Your task to perform on an android device: Go to Maps Image 0: 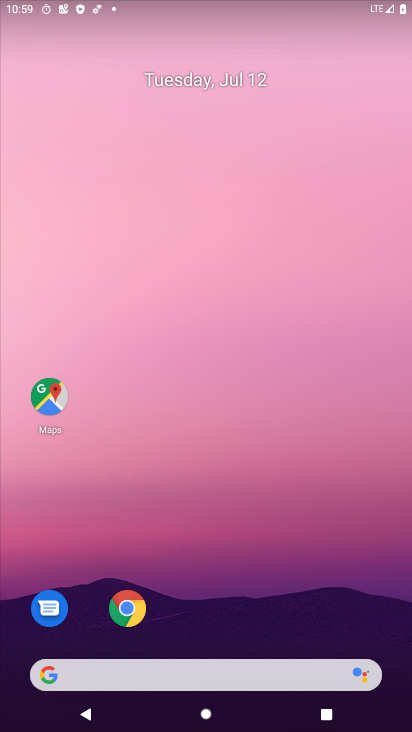
Step 0: click (53, 389)
Your task to perform on an android device: Go to Maps Image 1: 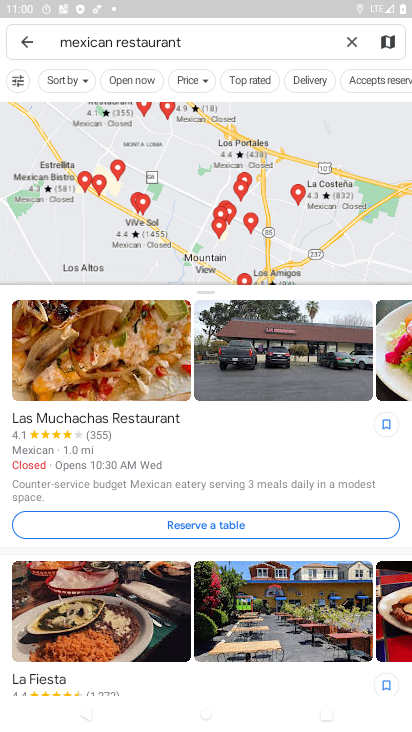
Step 1: click (22, 48)
Your task to perform on an android device: Go to Maps Image 2: 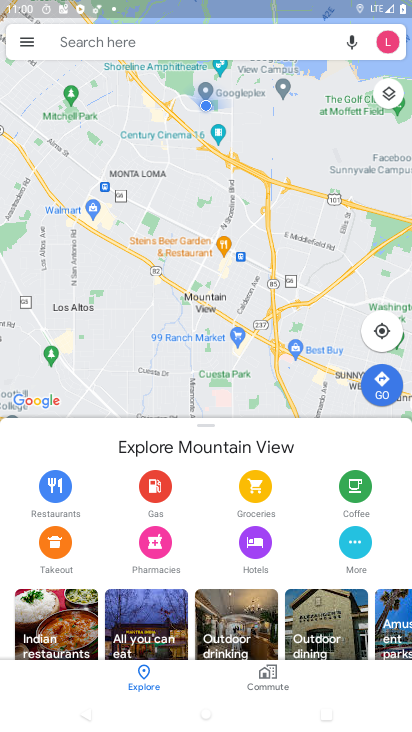
Step 2: task complete